Your task to perform on an android device: turn off data saver in the chrome app Image 0: 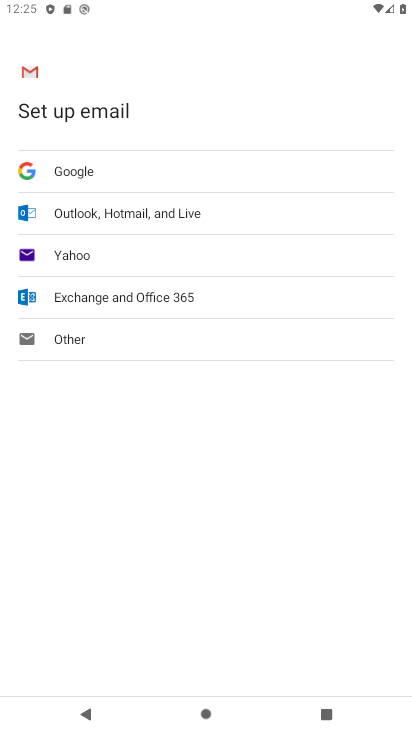
Step 0: press home button
Your task to perform on an android device: turn off data saver in the chrome app Image 1: 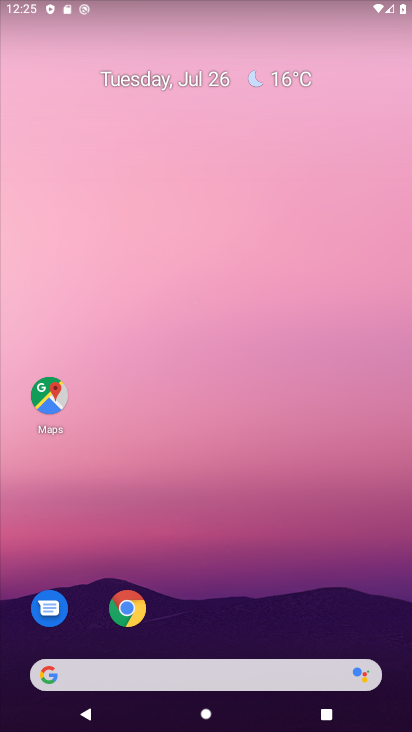
Step 1: drag from (279, 618) to (364, 26)
Your task to perform on an android device: turn off data saver in the chrome app Image 2: 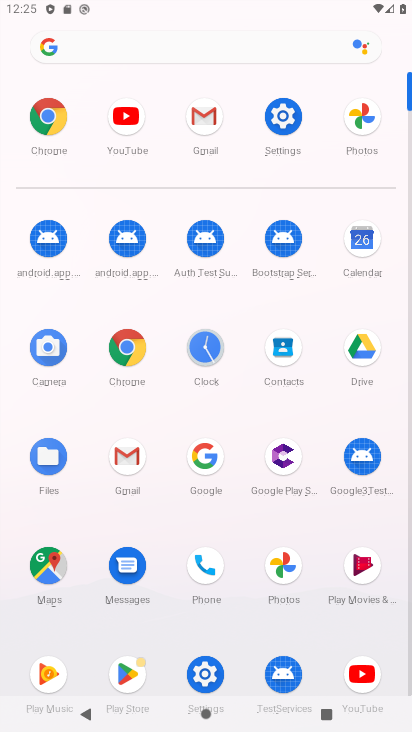
Step 2: click (52, 115)
Your task to perform on an android device: turn off data saver in the chrome app Image 3: 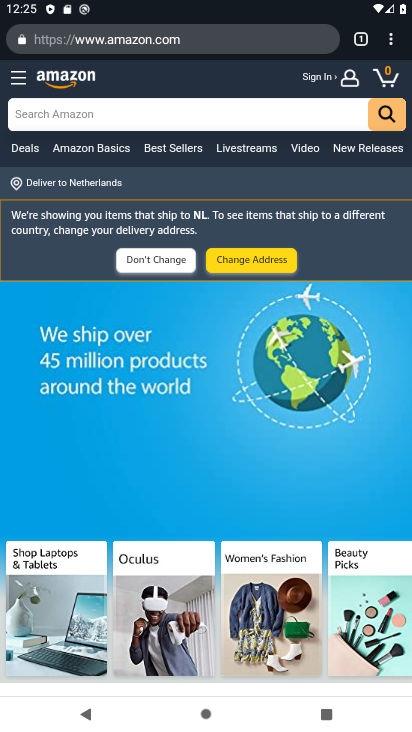
Step 3: click (391, 45)
Your task to perform on an android device: turn off data saver in the chrome app Image 4: 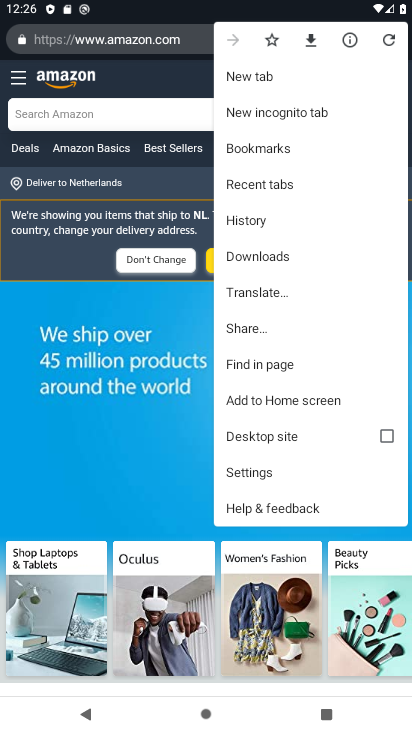
Step 4: click (267, 470)
Your task to perform on an android device: turn off data saver in the chrome app Image 5: 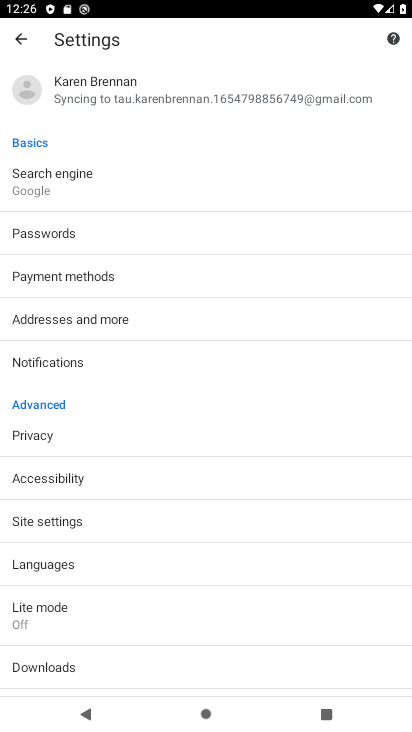
Step 5: click (123, 615)
Your task to perform on an android device: turn off data saver in the chrome app Image 6: 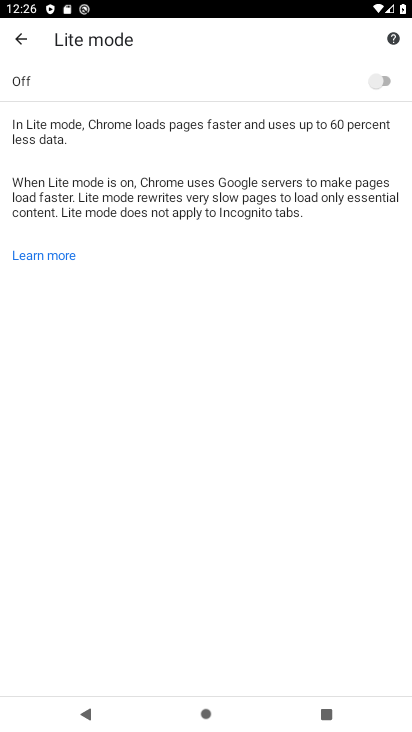
Step 6: click (363, 80)
Your task to perform on an android device: turn off data saver in the chrome app Image 7: 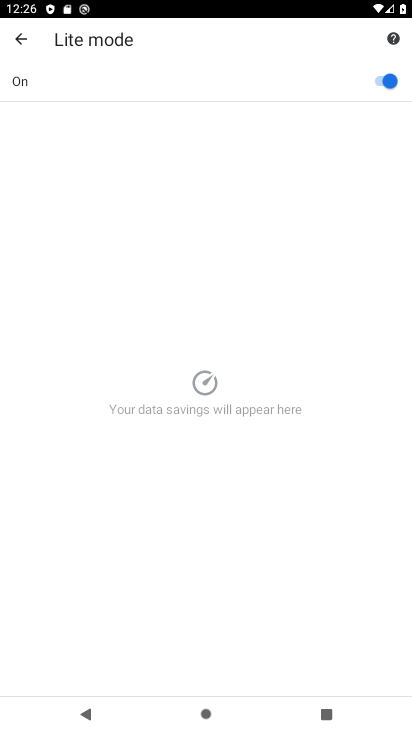
Step 7: task complete